Your task to perform on an android device: Check the weather Image 0: 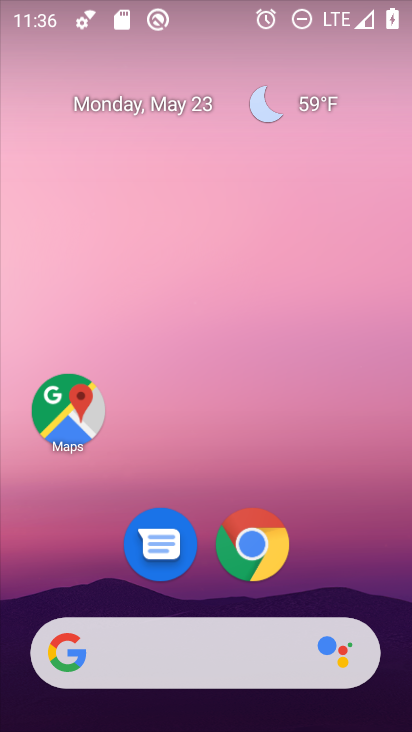
Step 0: click (306, 108)
Your task to perform on an android device: Check the weather Image 1: 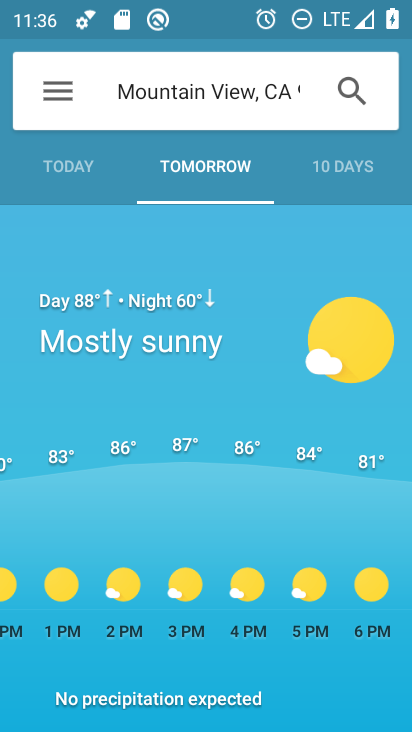
Step 1: click (63, 168)
Your task to perform on an android device: Check the weather Image 2: 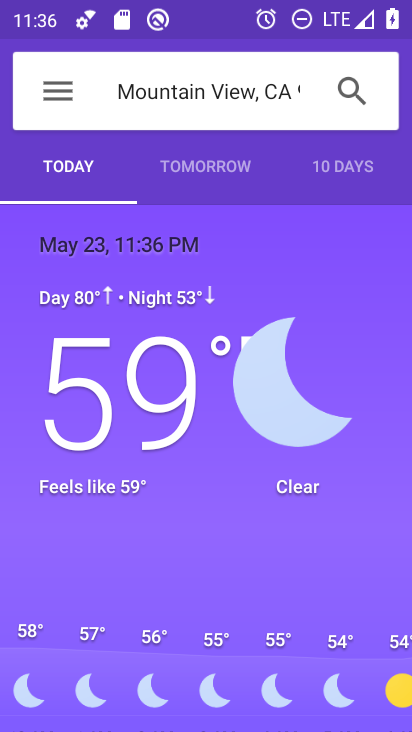
Step 2: task complete